Your task to perform on an android device: add a contact Image 0: 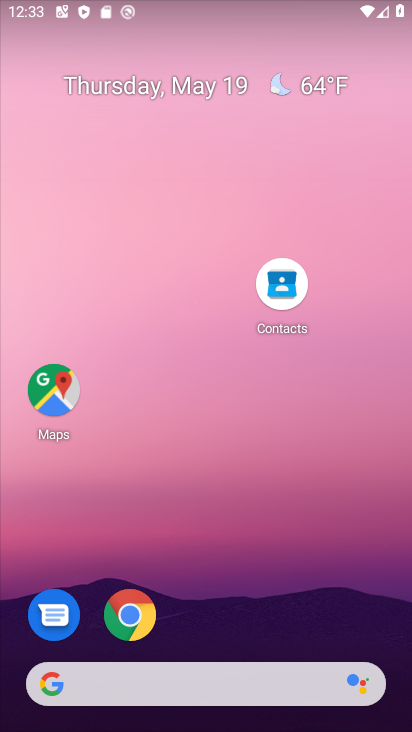
Step 0: drag from (245, 633) to (280, 39)
Your task to perform on an android device: add a contact Image 1: 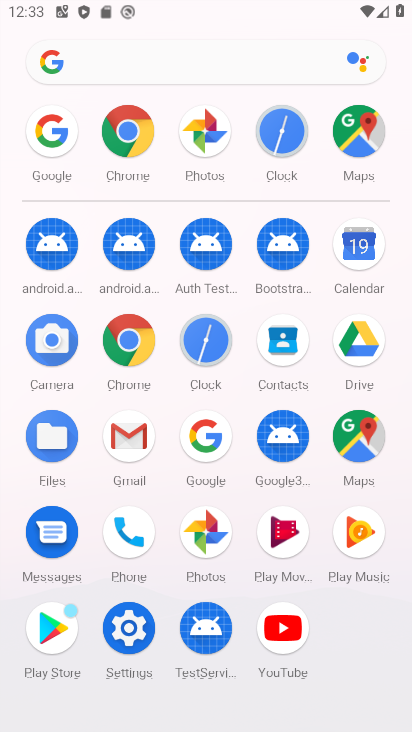
Step 1: click (270, 352)
Your task to perform on an android device: add a contact Image 2: 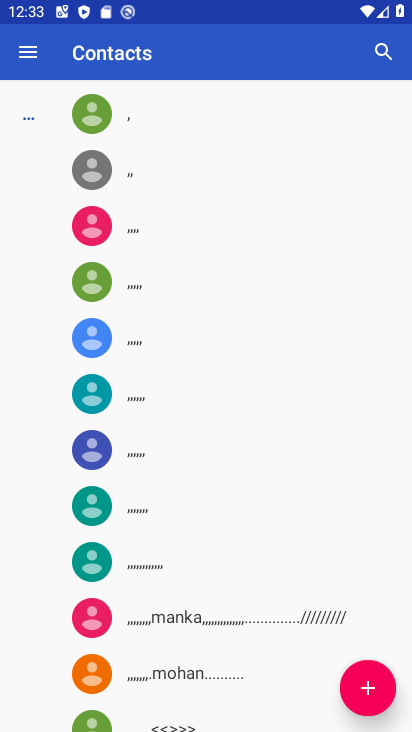
Step 2: click (361, 689)
Your task to perform on an android device: add a contact Image 3: 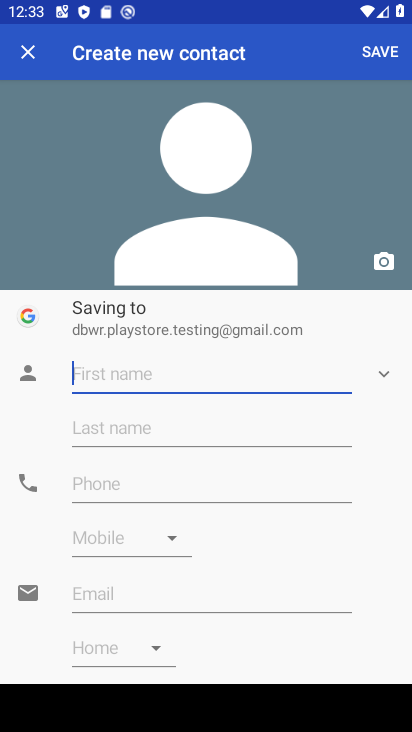
Step 3: type "hungsma"
Your task to perform on an android device: add a contact Image 4: 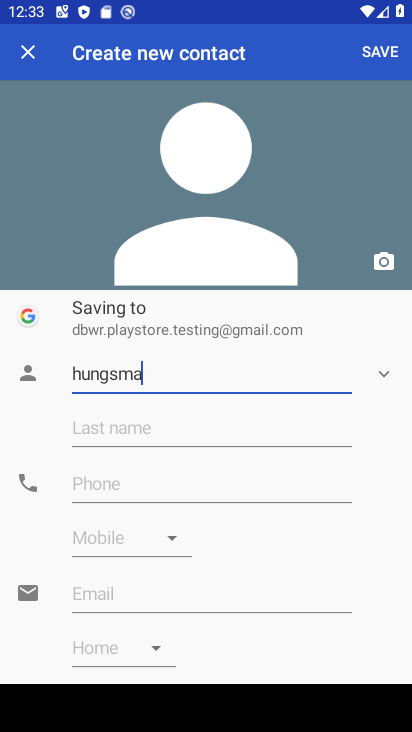
Step 4: click (198, 476)
Your task to perform on an android device: add a contact Image 5: 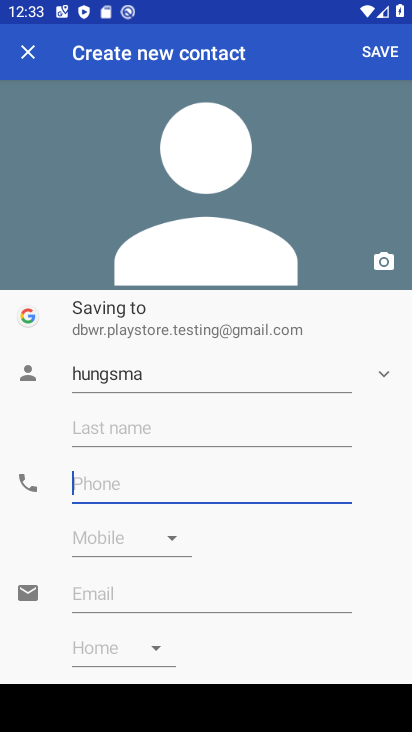
Step 5: type "98899775675"
Your task to perform on an android device: add a contact Image 6: 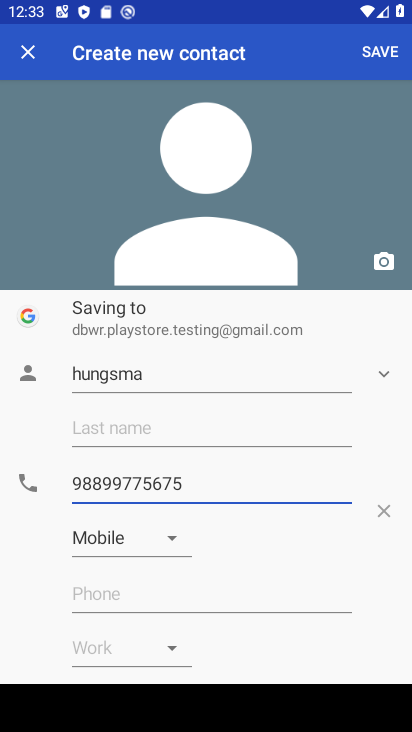
Step 6: click (373, 59)
Your task to perform on an android device: add a contact Image 7: 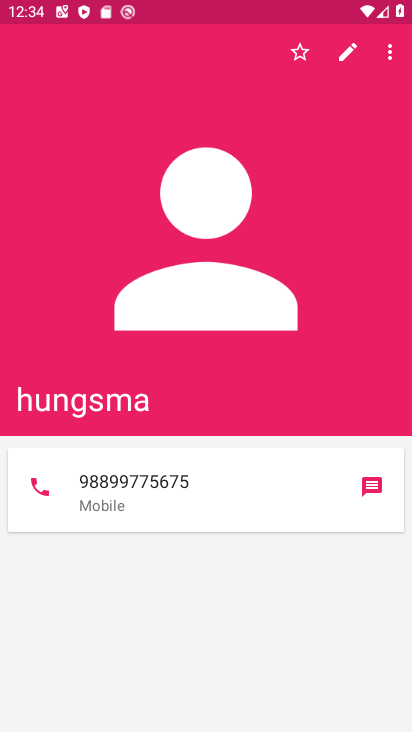
Step 7: task complete